Your task to perform on an android device: refresh tabs in the chrome app Image 0: 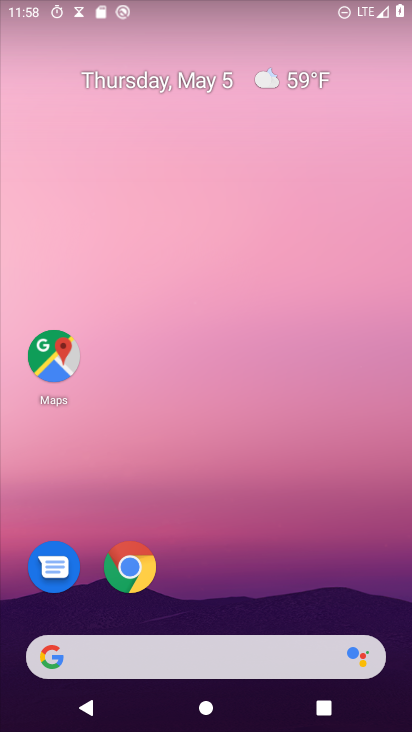
Step 0: click (141, 566)
Your task to perform on an android device: refresh tabs in the chrome app Image 1: 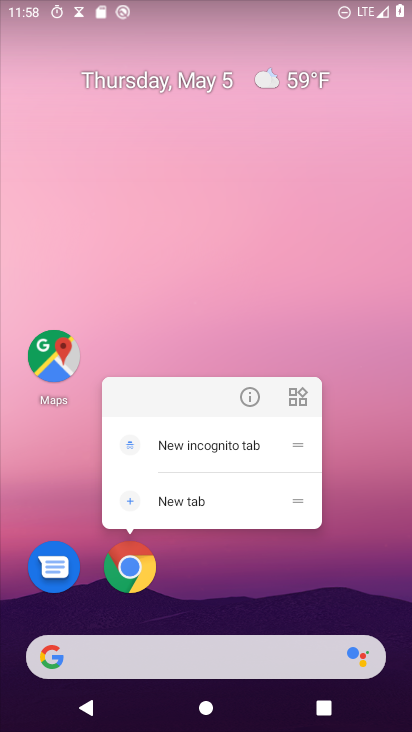
Step 1: click (132, 574)
Your task to perform on an android device: refresh tabs in the chrome app Image 2: 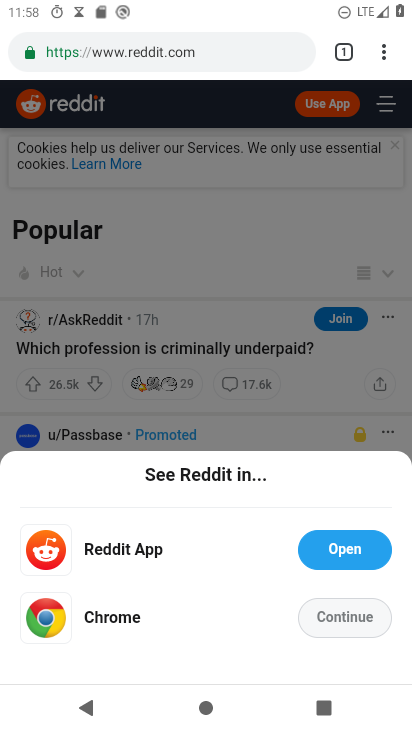
Step 2: click (380, 52)
Your task to perform on an android device: refresh tabs in the chrome app Image 3: 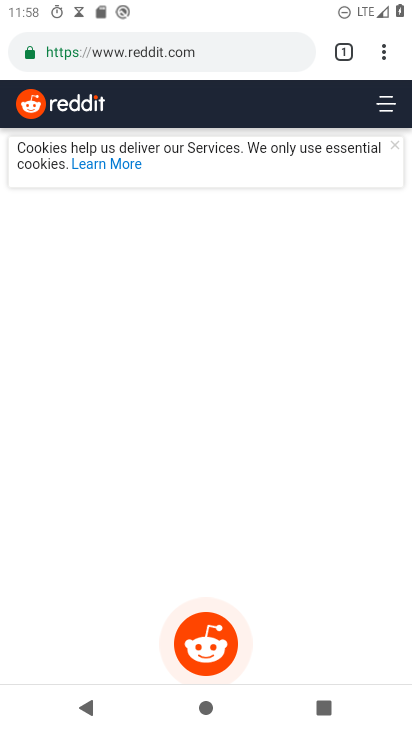
Step 3: click (386, 51)
Your task to perform on an android device: refresh tabs in the chrome app Image 4: 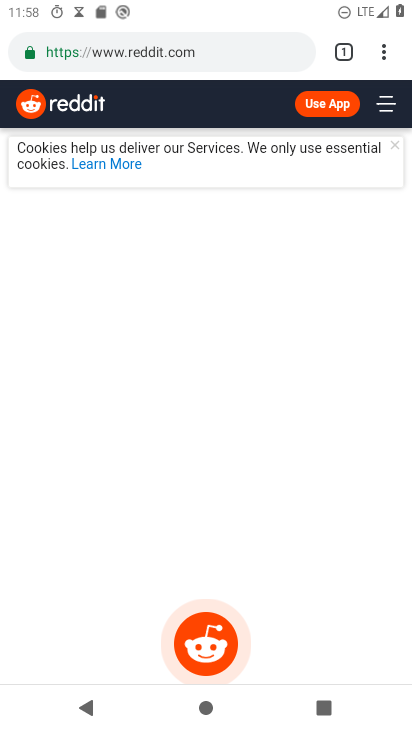
Step 4: click (386, 51)
Your task to perform on an android device: refresh tabs in the chrome app Image 5: 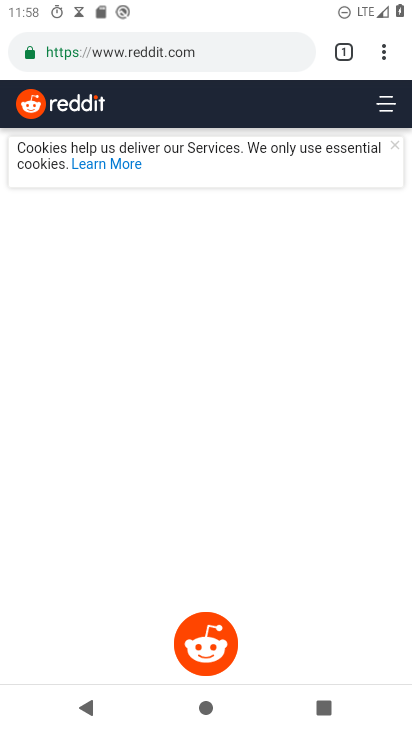
Step 5: click (386, 51)
Your task to perform on an android device: refresh tabs in the chrome app Image 6: 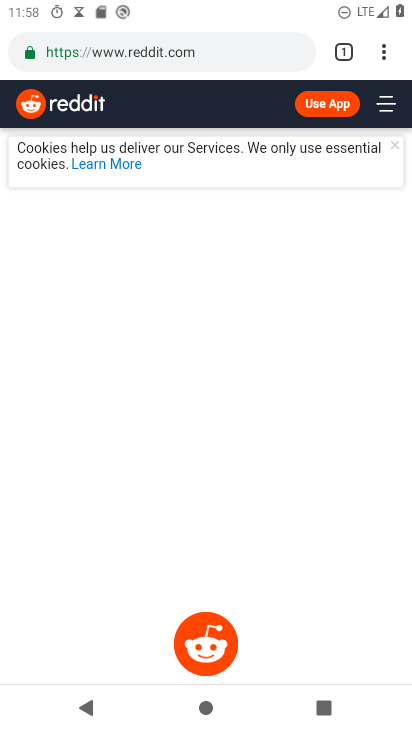
Step 6: drag from (386, 51) to (403, 103)
Your task to perform on an android device: refresh tabs in the chrome app Image 7: 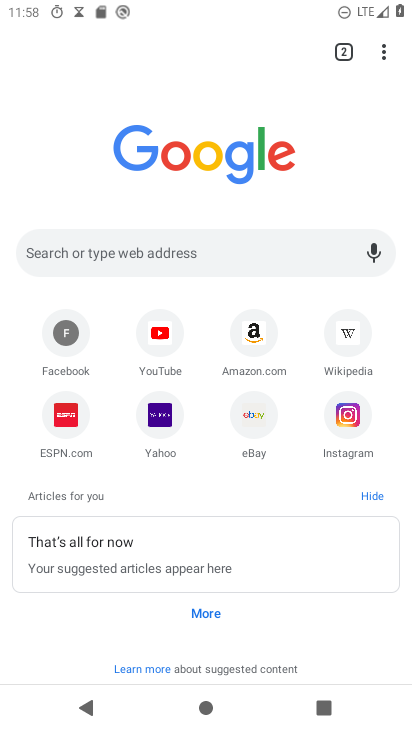
Step 7: click (385, 58)
Your task to perform on an android device: refresh tabs in the chrome app Image 8: 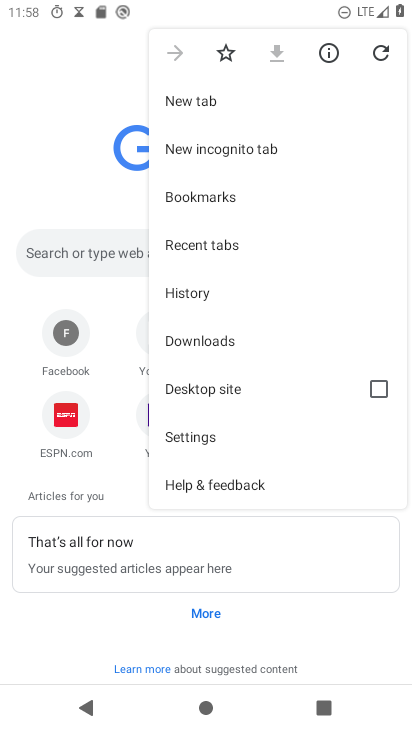
Step 8: click (385, 57)
Your task to perform on an android device: refresh tabs in the chrome app Image 9: 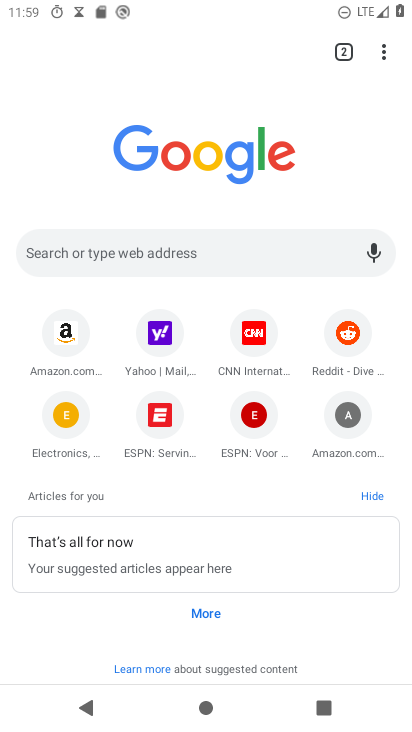
Step 9: task complete